Your task to perform on an android device: uninstall "Adobe Express: Graphic Design" Image 0: 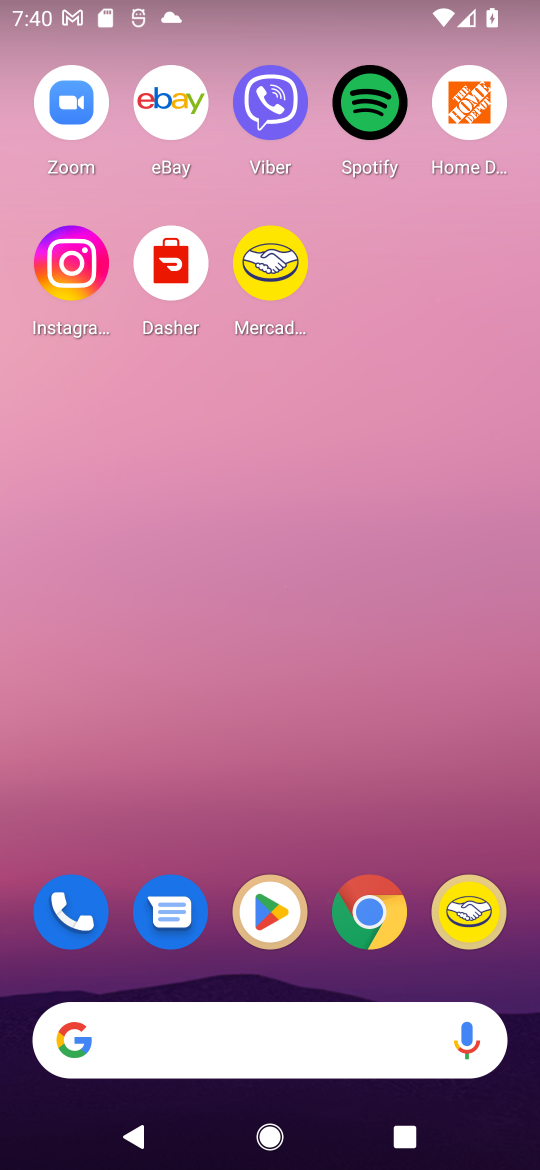
Step 0: click (269, 921)
Your task to perform on an android device: uninstall "Adobe Express: Graphic Design" Image 1: 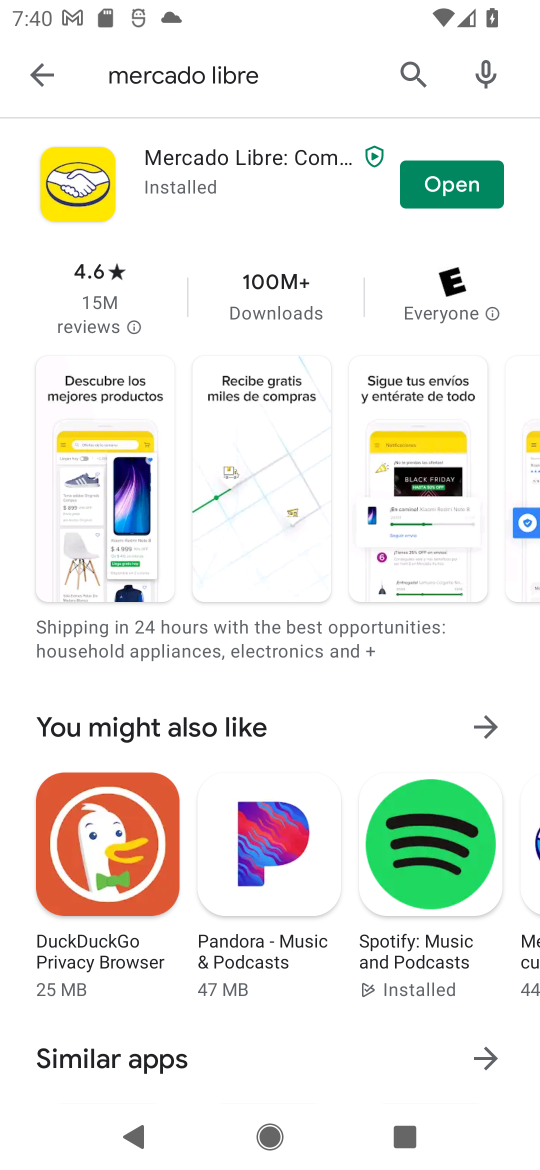
Step 1: click (408, 65)
Your task to perform on an android device: uninstall "Adobe Express: Graphic Design" Image 2: 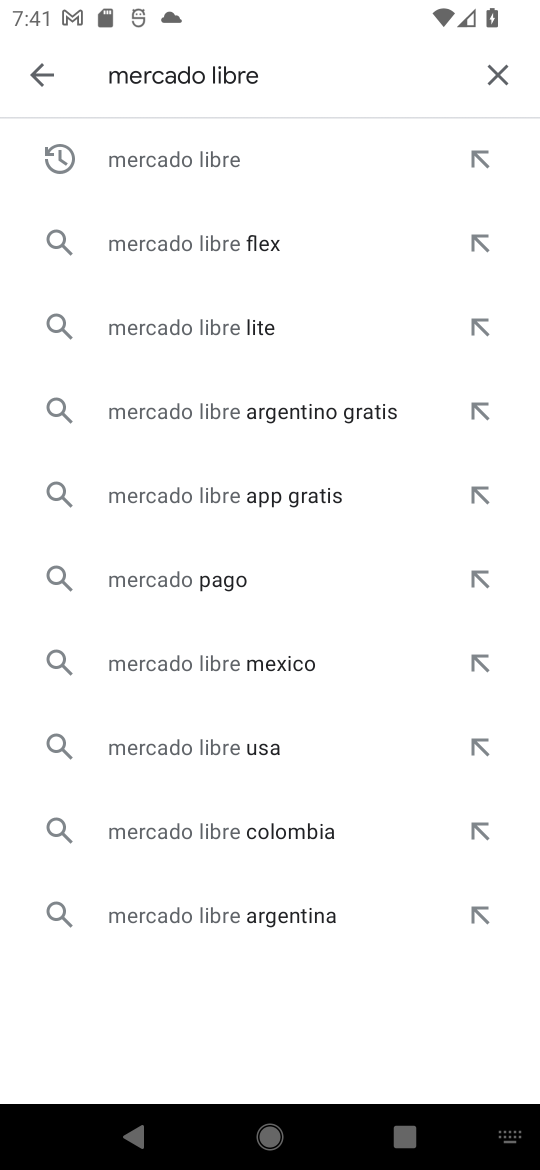
Step 2: click (505, 73)
Your task to perform on an android device: uninstall "Adobe Express: Graphic Design" Image 3: 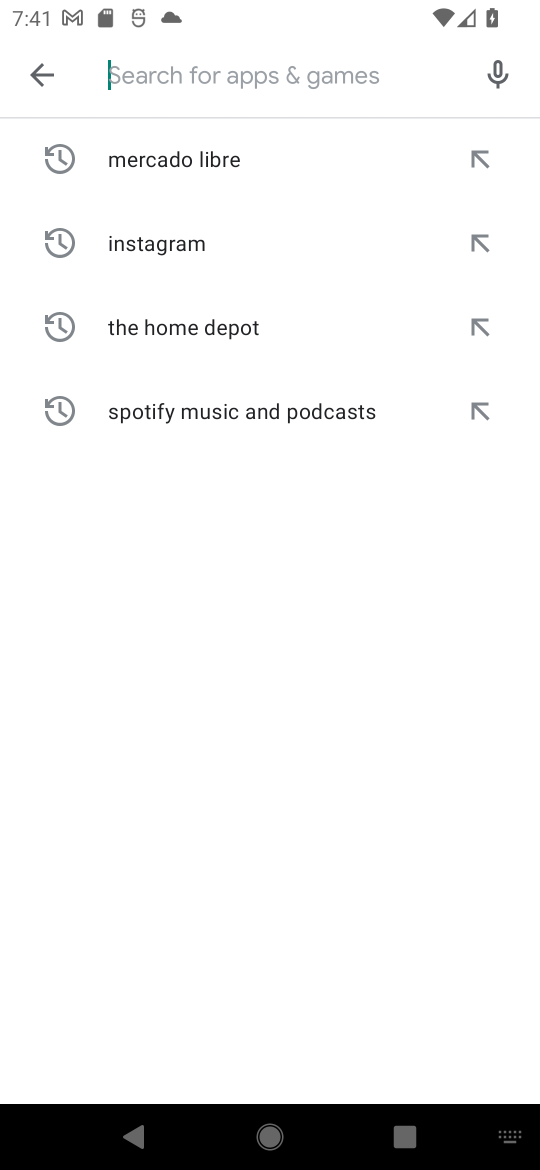
Step 3: type "Adobe Express: Graphic Design"
Your task to perform on an android device: uninstall "Adobe Express: Graphic Design" Image 4: 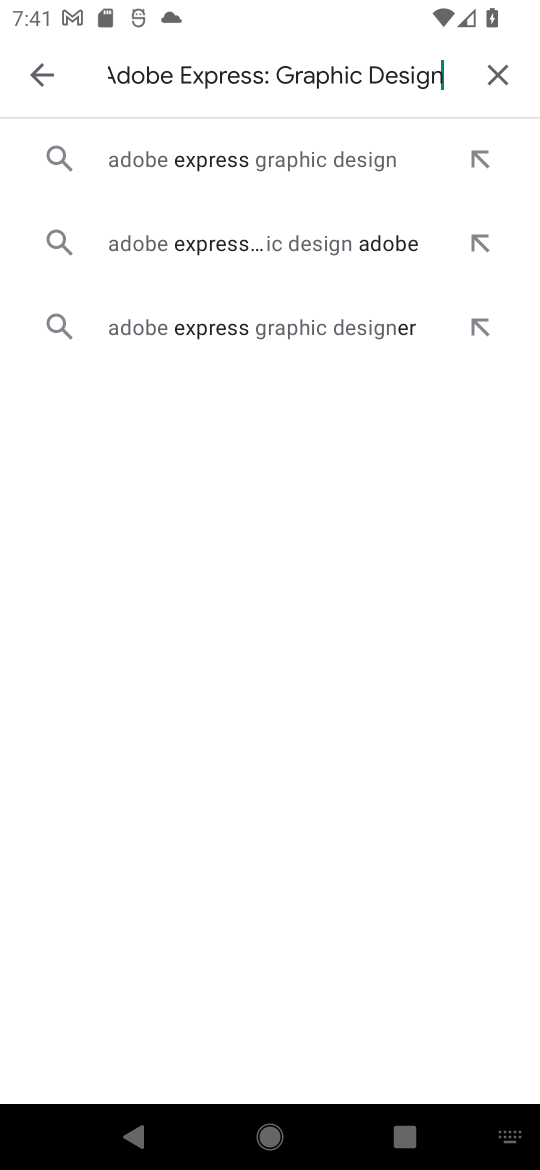
Step 4: click (291, 155)
Your task to perform on an android device: uninstall "Adobe Express: Graphic Design" Image 5: 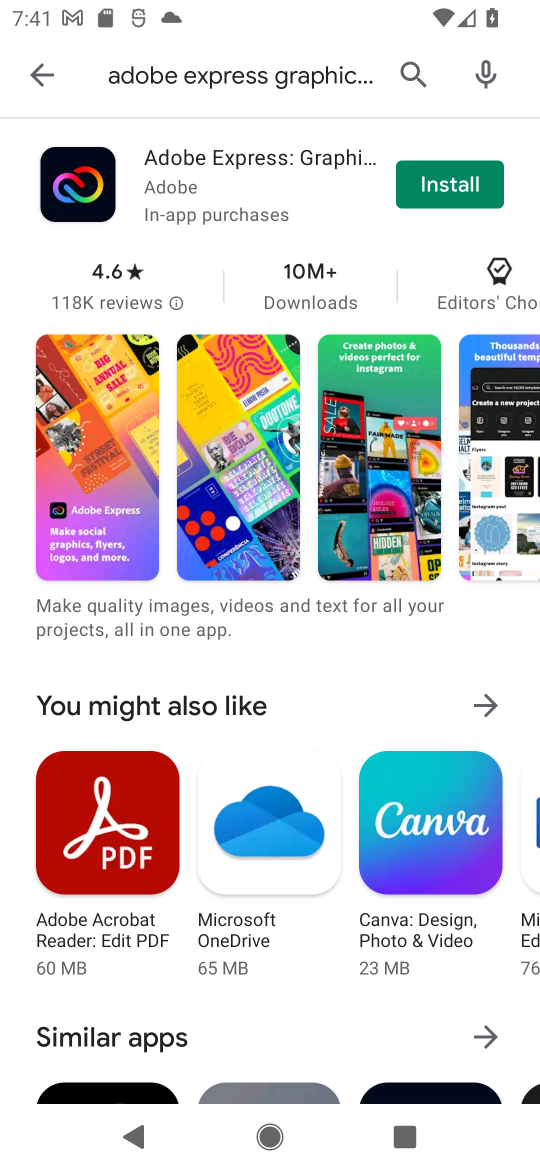
Step 5: task complete